Your task to perform on an android device: move a message to another label in the gmail app Image 0: 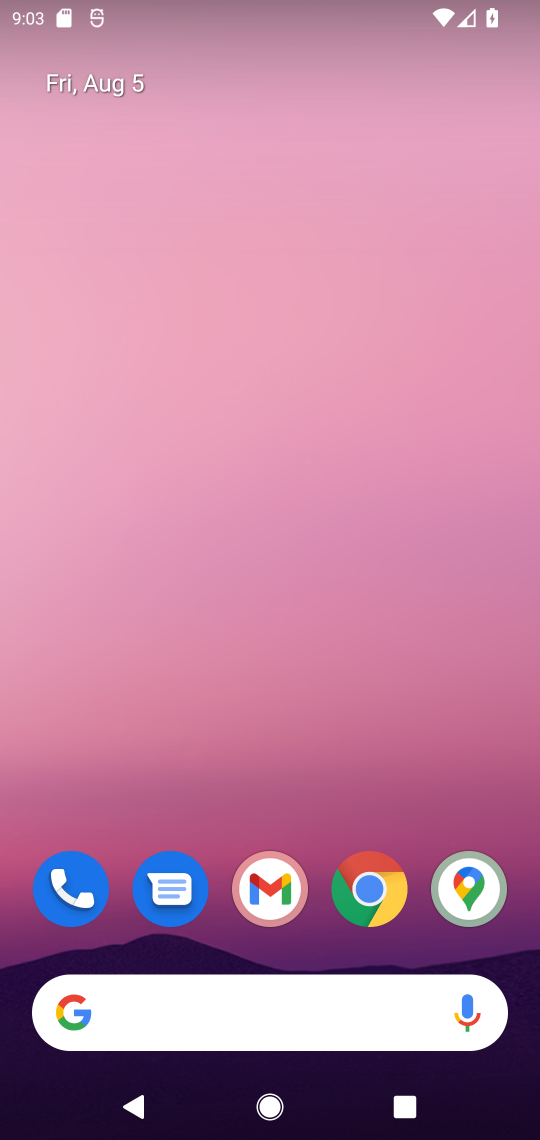
Step 0: drag from (171, 924) to (178, 264)
Your task to perform on an android device: move a message to another label in the gmail app Image 1: 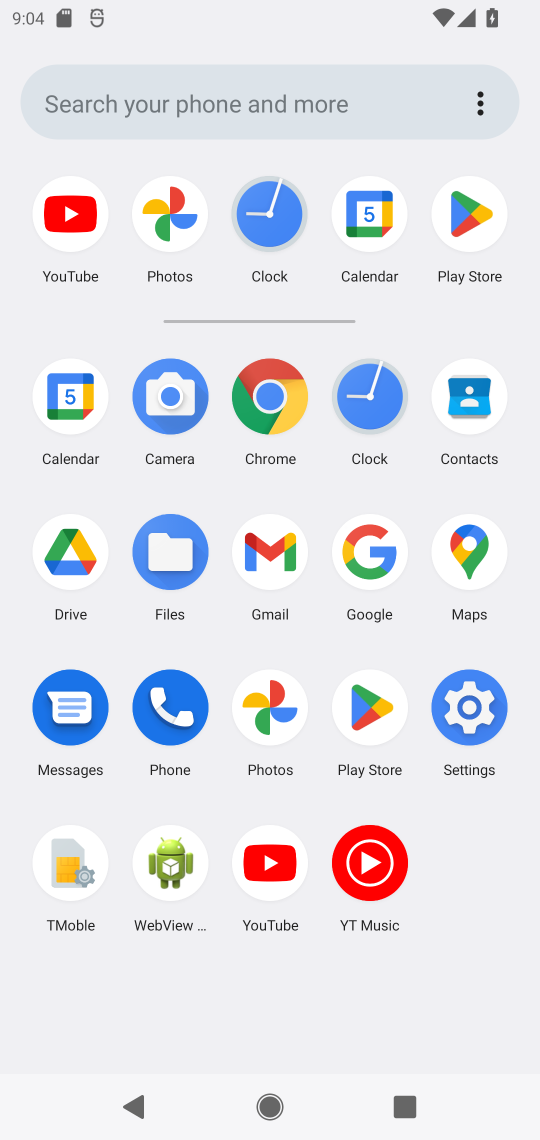
Step 1: click (271, 552)
Your task to perform on an android device: move a message to another label in the gmail app Image 2: 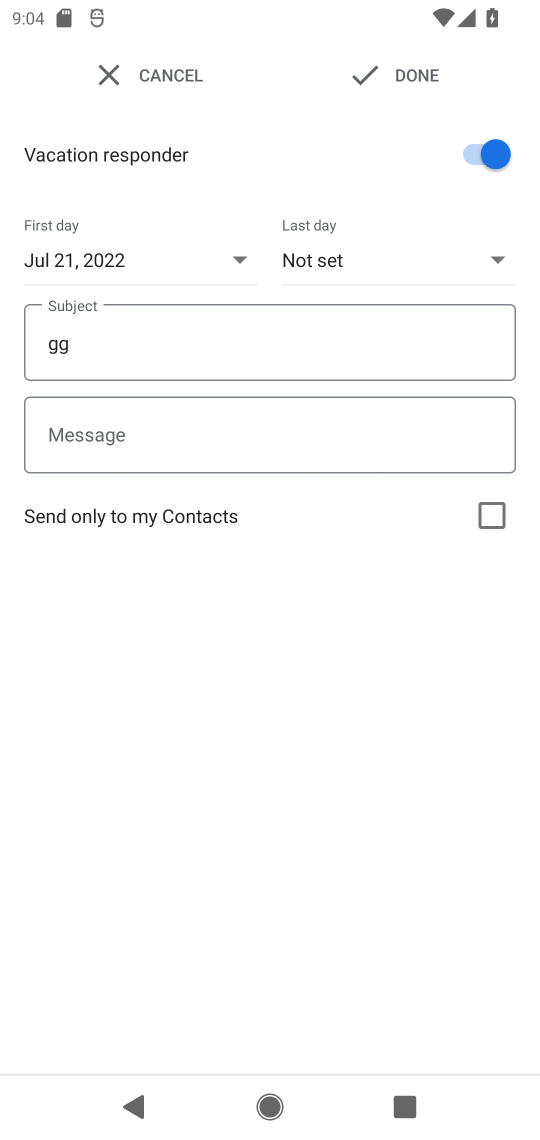
Step 2: click (111, 70)
Your task to perform on an android device: move a message to another label in the gmail app Image 3: 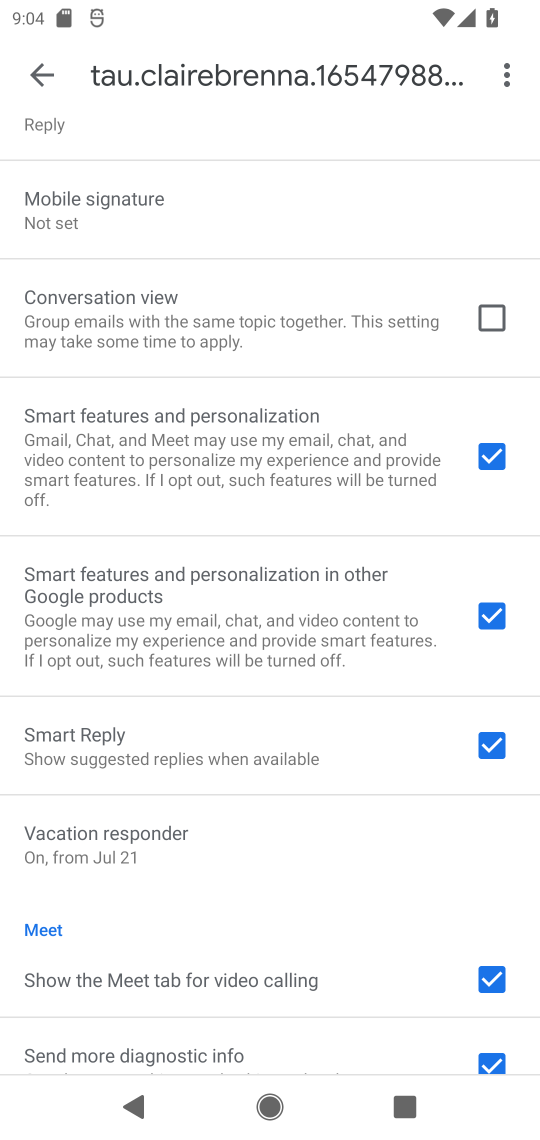
Step 3: click (36, 65)
Your task to perform on an android device: move a message to another label in the gmail app Image 4: 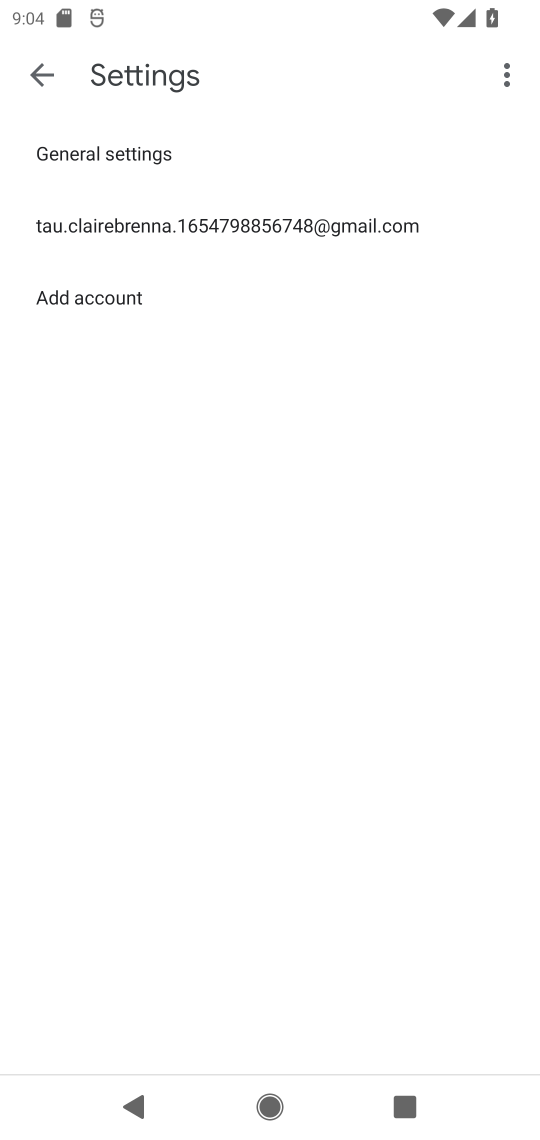
Step 4: click (61, 87)
Your task to perform on an android device: move a message to another label in the gmail app Image 5: 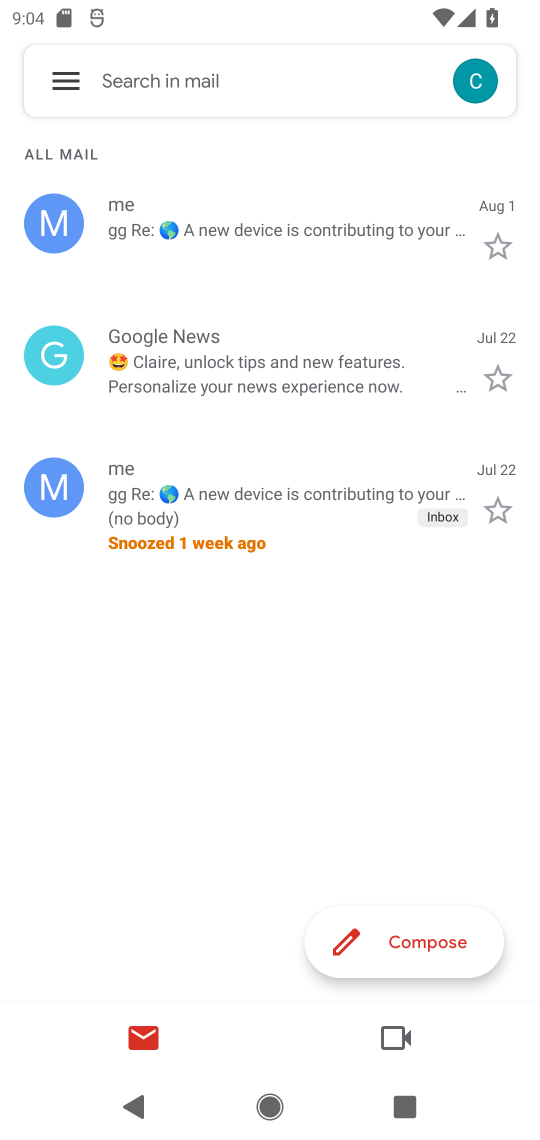
Step 5: click (112, 227)
Your task to perform on an android device: move a message to another label in the gmail app Image 6: 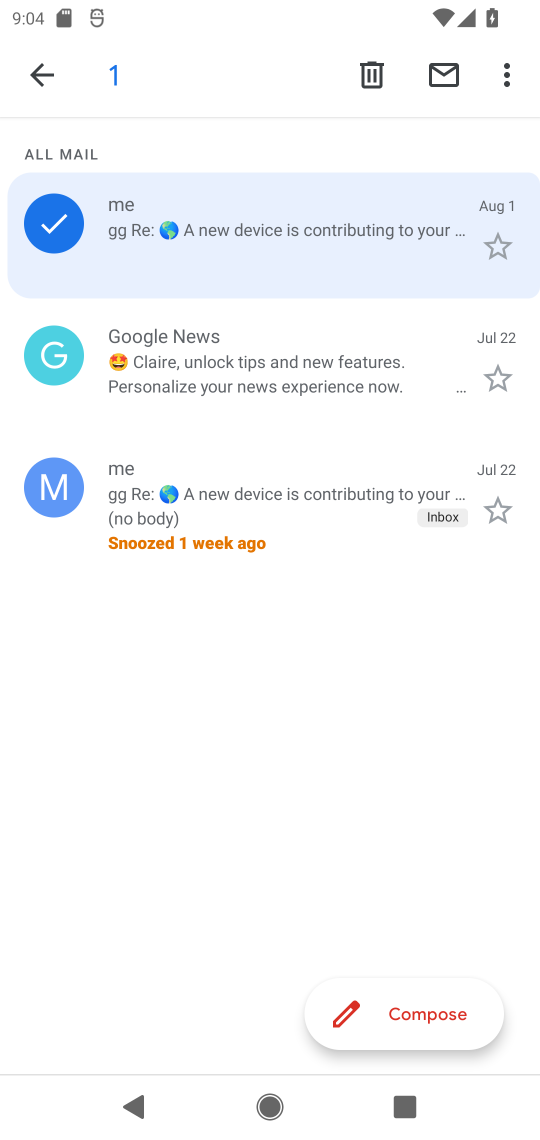
Step 6: click (507, 71)
Your task to perform on an android device: move a message to another label in the gmail app Image 7: 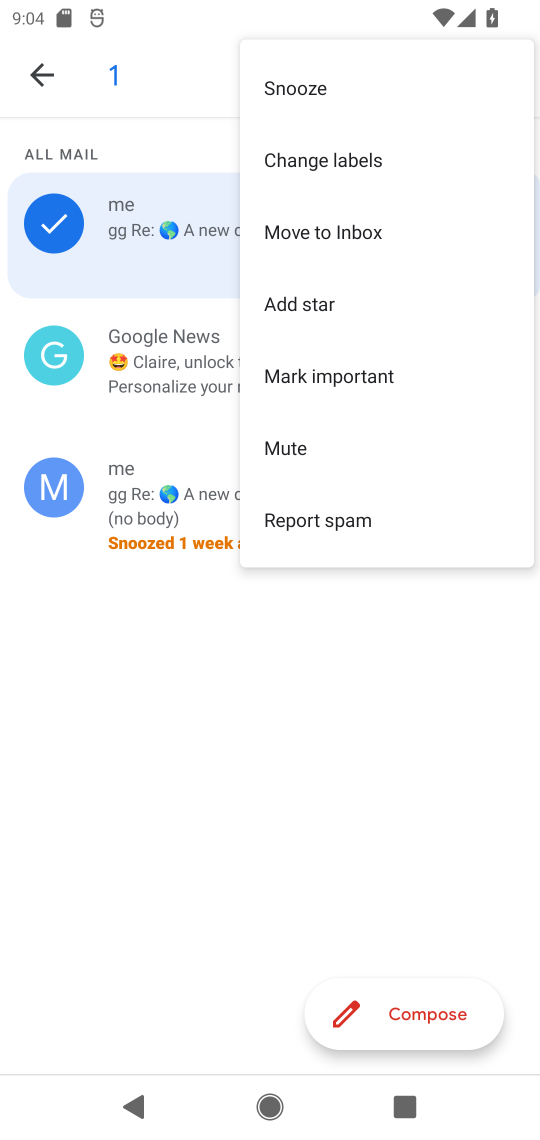
Step 7: click (307, 245)
Your task to perform on an android device: move a message to another label in the gmail app Image 8: 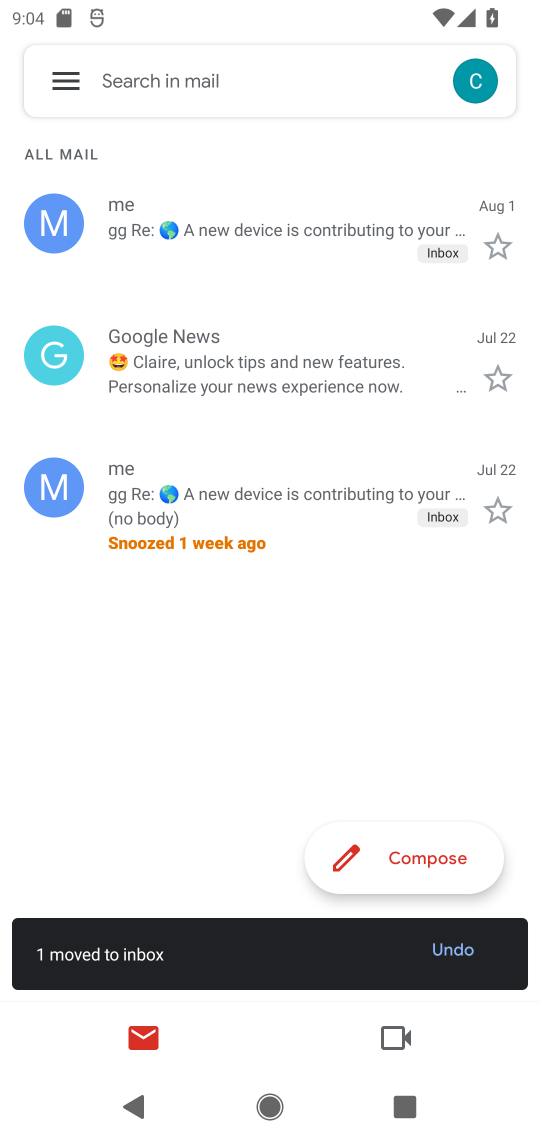
Step 8: task complete